Your task to perform on an android device: What is the recent news? Image 0: 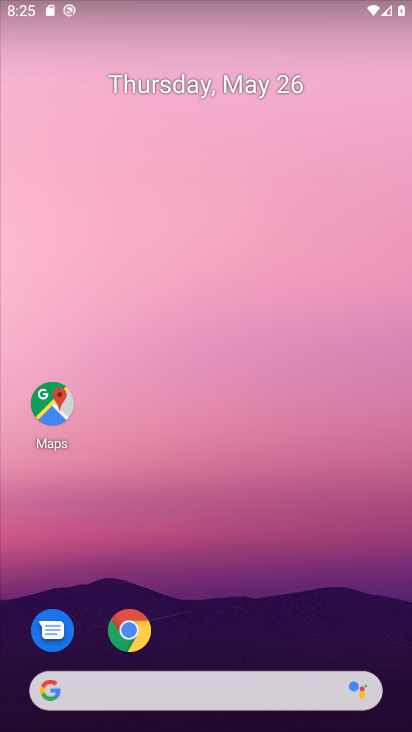
Step 0: click (277, 608)
Your task to perform on an android device: What is the recent news? Image 1: 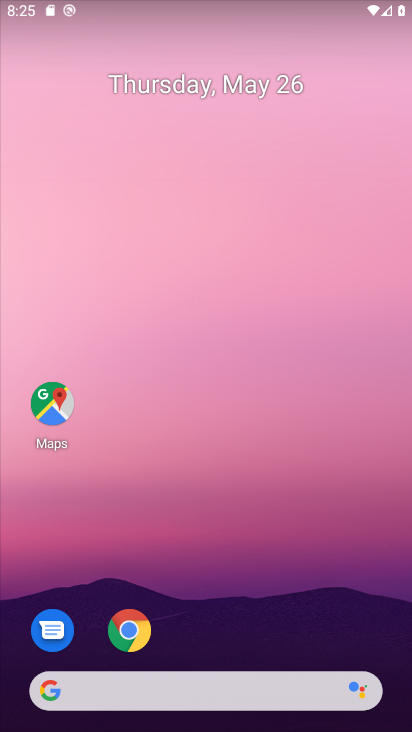
Step 1: drag from (274, 540) to (310, 64)
Your task to perform on an android device: What is the recent news? Image 2: 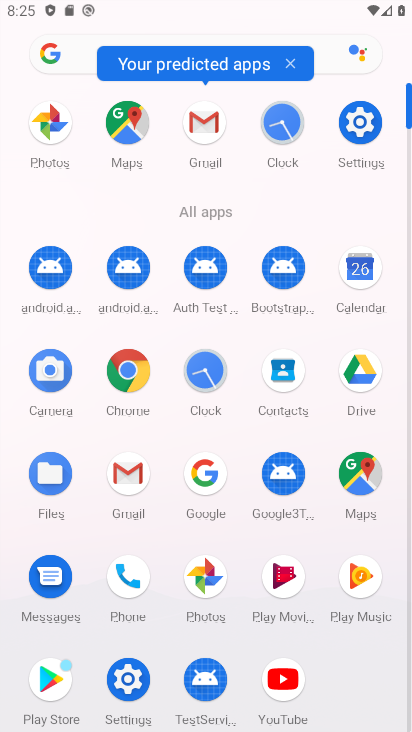
Step 2: press back button
Your task to perform on an android device: What is the recent news? Image 3: 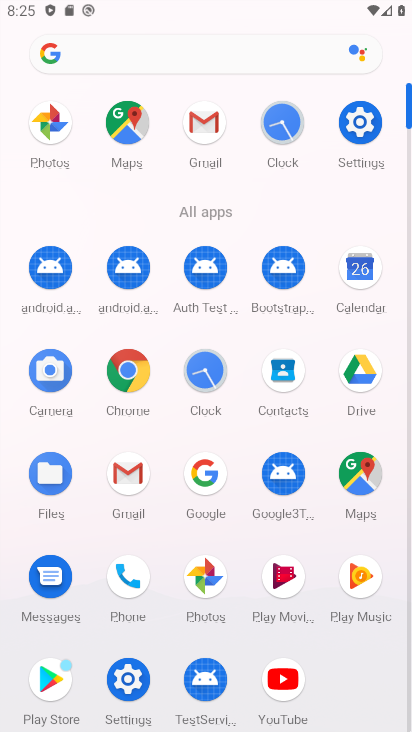
Step 3: press back button
Your task to perform on an android device: What is the recent news? Image 4: 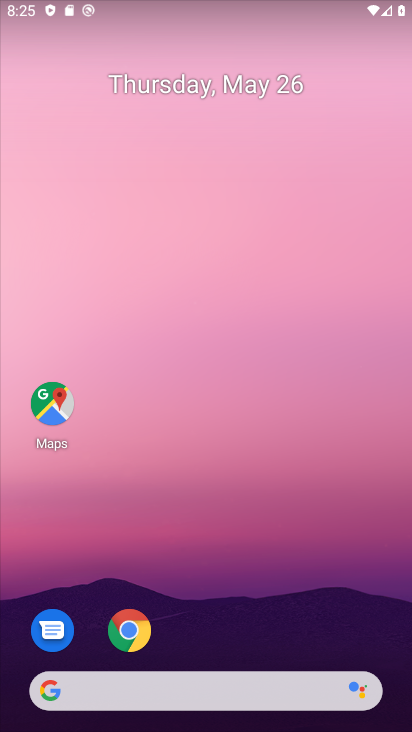
Step 4: drag from (86, 246) to (380, 459)
Your task to perform on an android device: What is the recent news? Image 5: 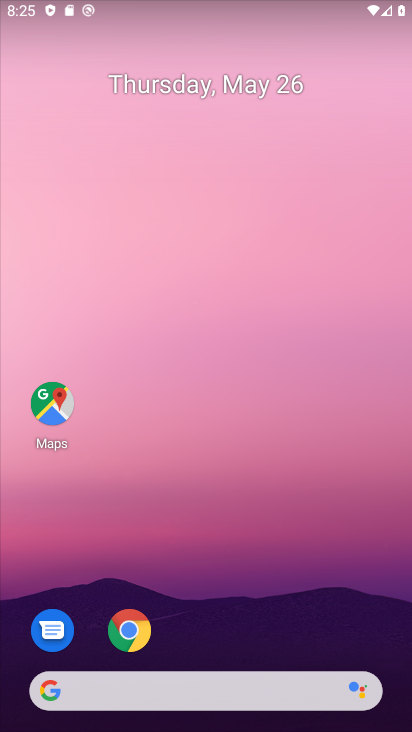
Step 5: drag from (8, 209) to (400, 347)
Your task to perform on an android device: What is the recent news? Image 6: 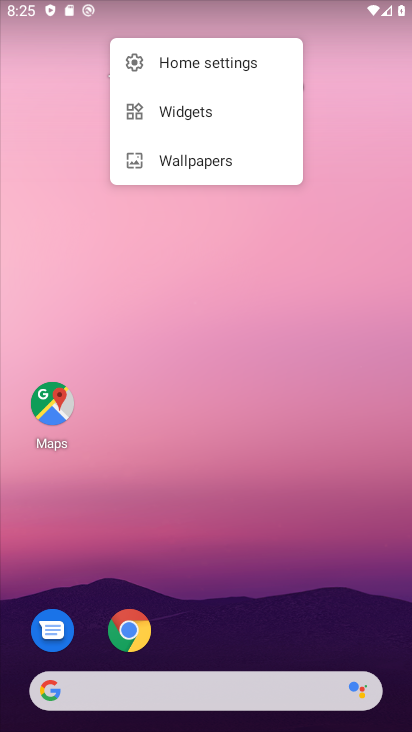
Step 6: drag from (33, 231) to (404, 317)
Your task to perform on an android device: What is the recent news? Image 7: 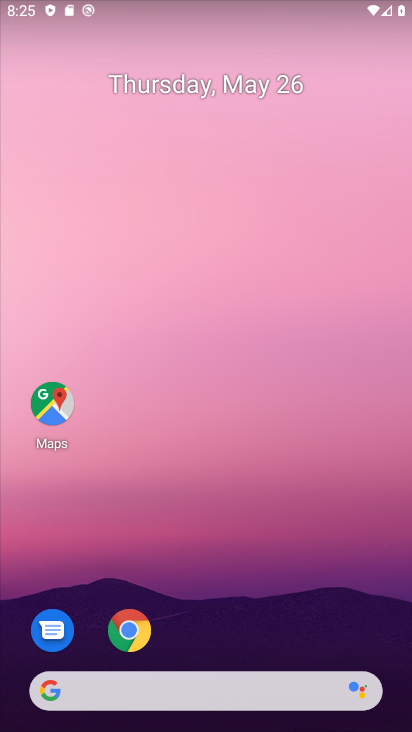
Step 7: drag from (26, 201) to (389, 300)
Your task to perform on an android device: What is the recent news? Image 8: 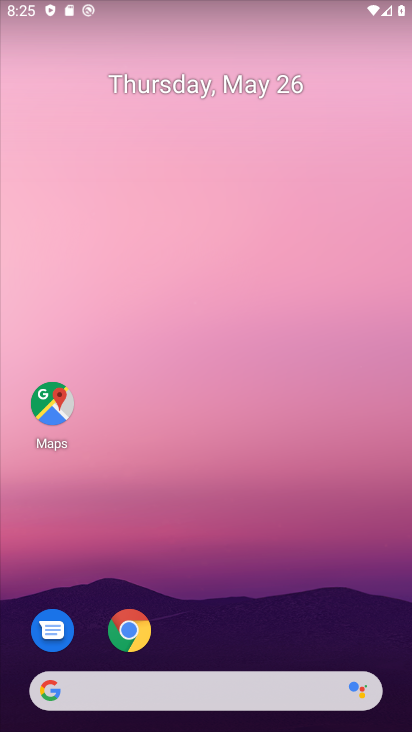
Step 8: drag from (10, 209) to (411, 435)
Your task to perform on an android device: What is the recent news? Image 9: 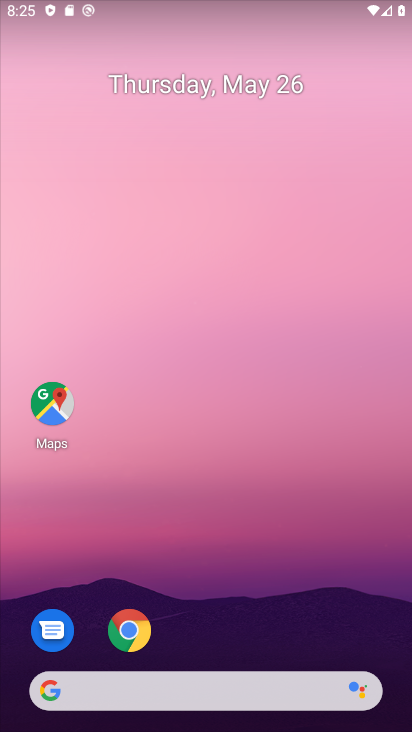
Step 9: drag from (301, 422) to (349, 455)
Your task to perform on an android device: What is the recent news? Image 10: 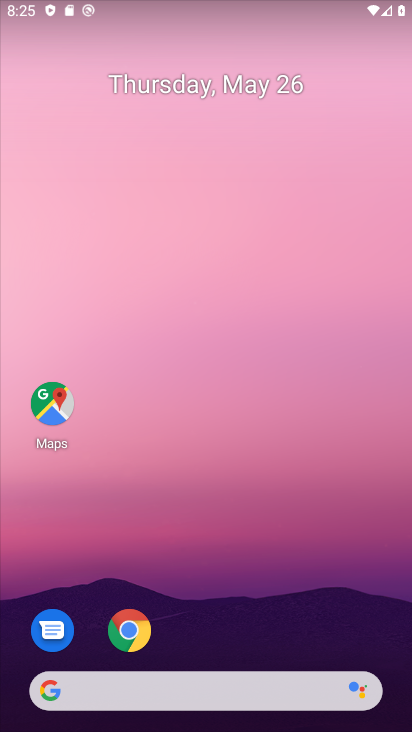
Step 10: click (321, 406)
Your task to perform on an android device: What is the recent news? Image 11: 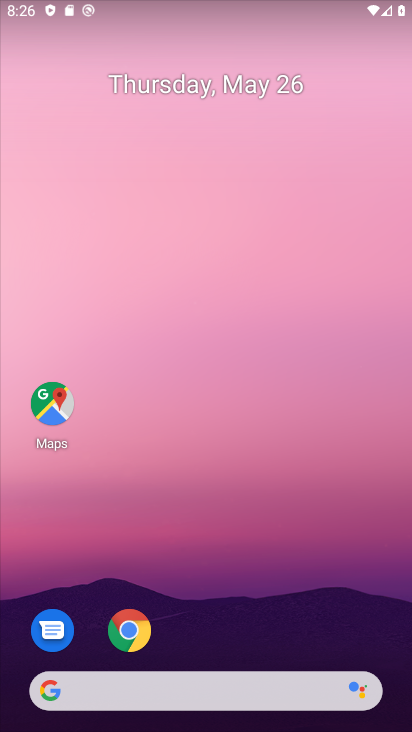
Step 11: task complete